Your task to perform on an android device: check data usage Image 0: 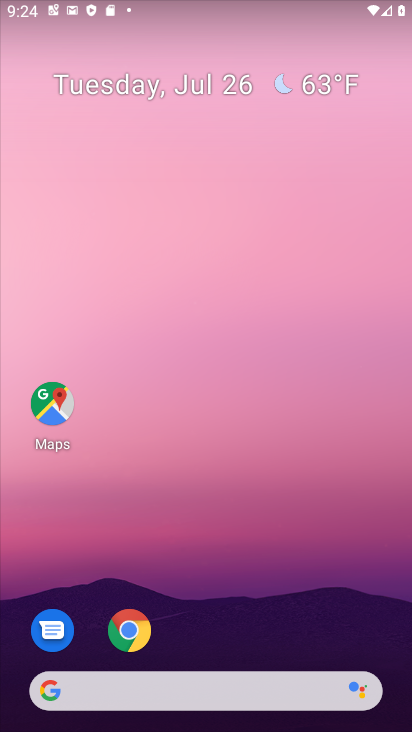
Step 0: press home button
Your task to perform on an android device: check data usage Image 1: 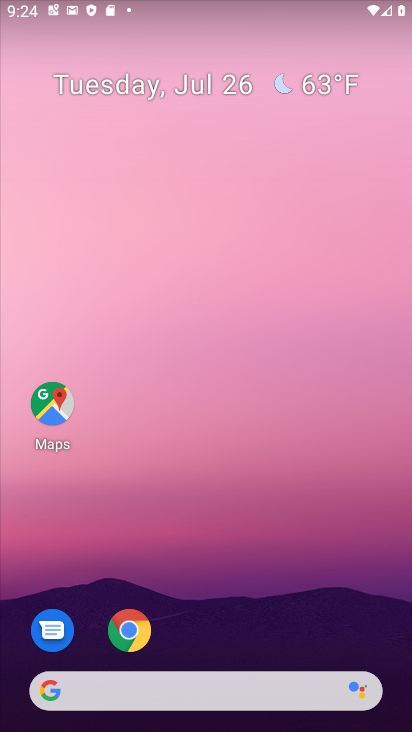
Step 1: drag from (222, 643) to (216, 6)
Your task to perform on an android device: check data usage Image 2: 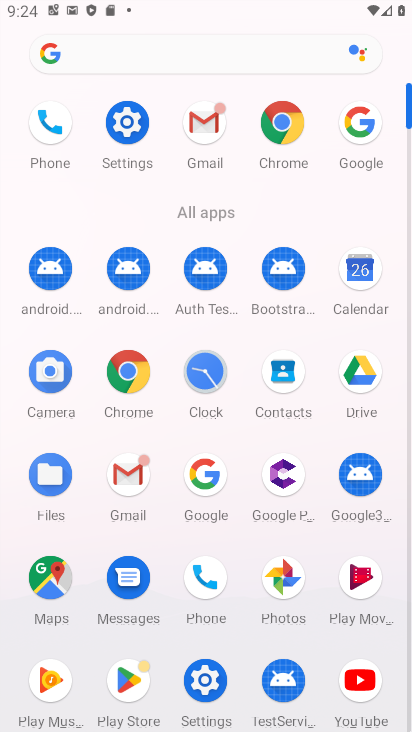
Step 2: click (128, 115)
Your task to perform on an android device: check data usage Image 3: 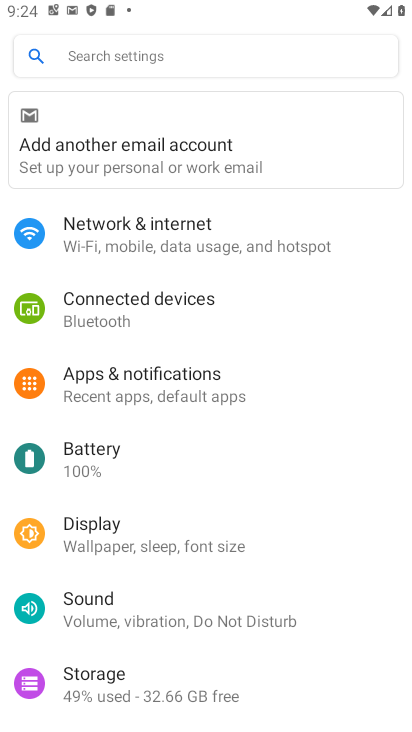
Step 3: click (149, 232)
Your task to perform on an android device: check data usage Image 4: 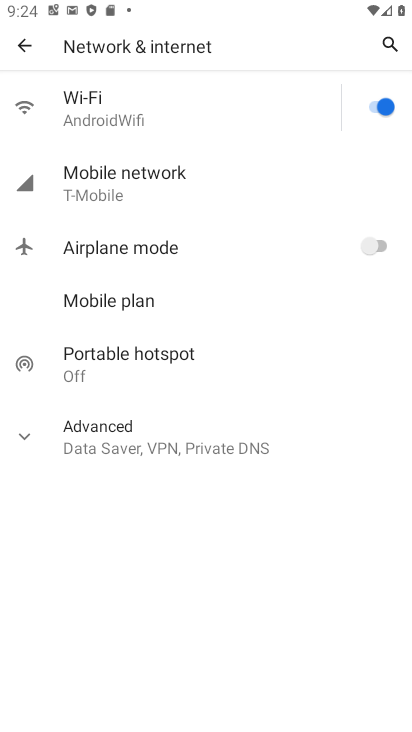
Step 4: click (137, 186)
Your task to perform on an android device: check data usage Image 5: 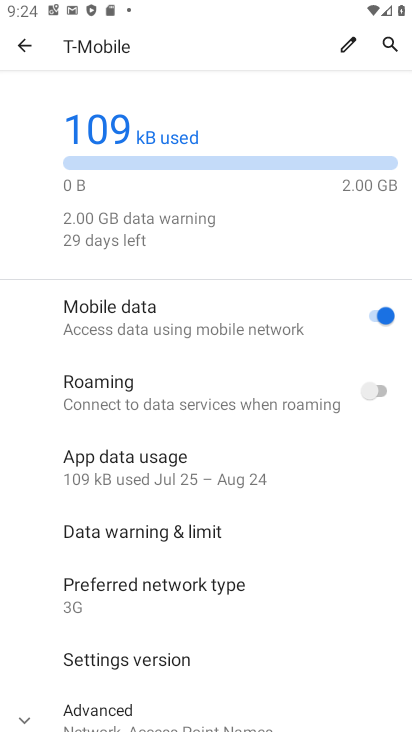
Step 5: click (198, 461)
Your task to perform on an android device: check data usage Image 6: 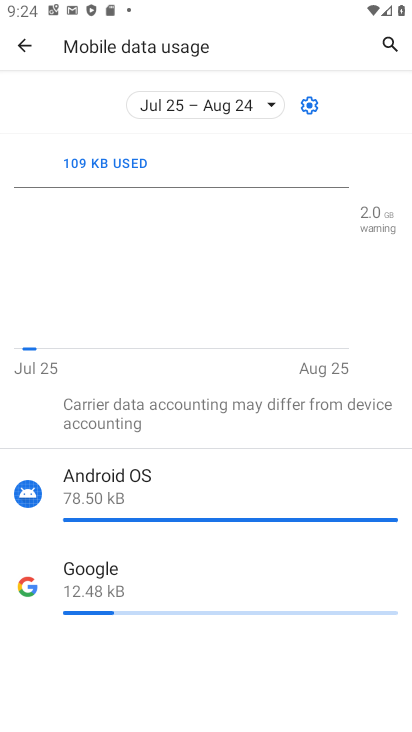
Step 6: task complete